Your task to perform on an android device: Add jbl charge 4 to the cart on costco, then select checkout. Image 0: 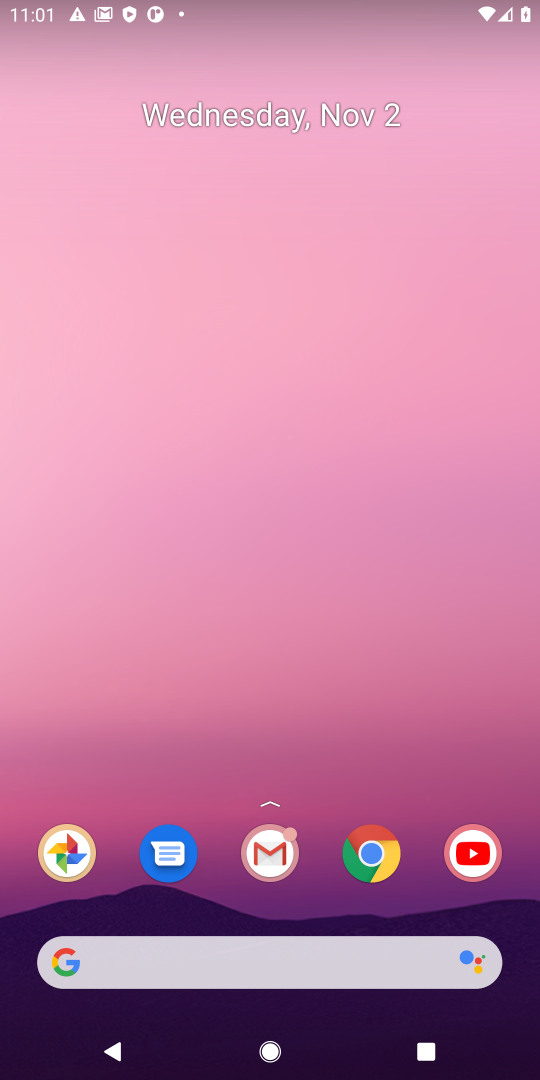
Step 0: click (372, 859)
Your task to perform on an android device: Add jbl charge 4 to the cart on costco, then select checkout. Image 1: 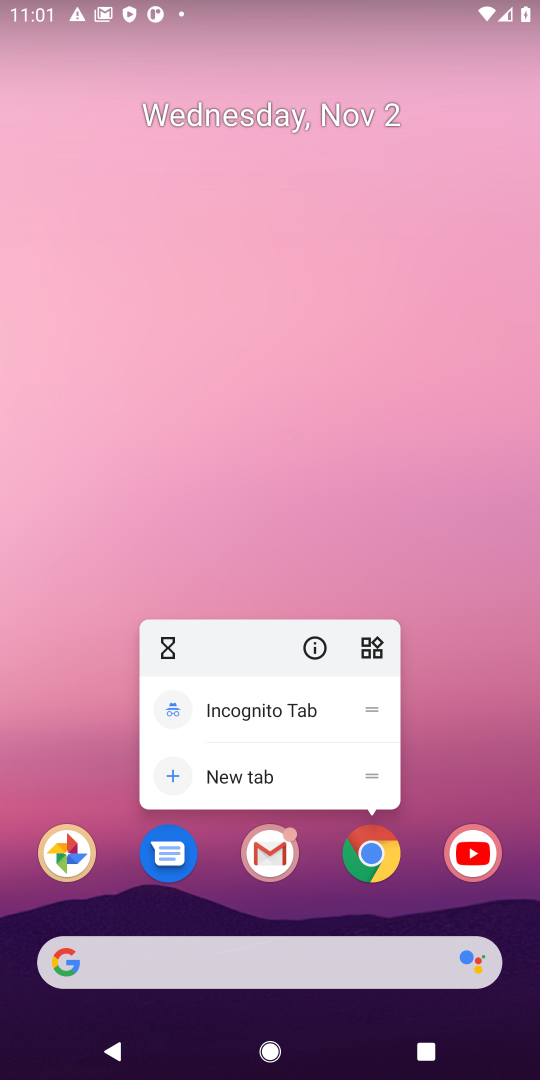
Step 1: click (372, 858)
Your task to perform on an android device: Add jbl charge 4 to the cart on costco, then select checkout. Image 2: 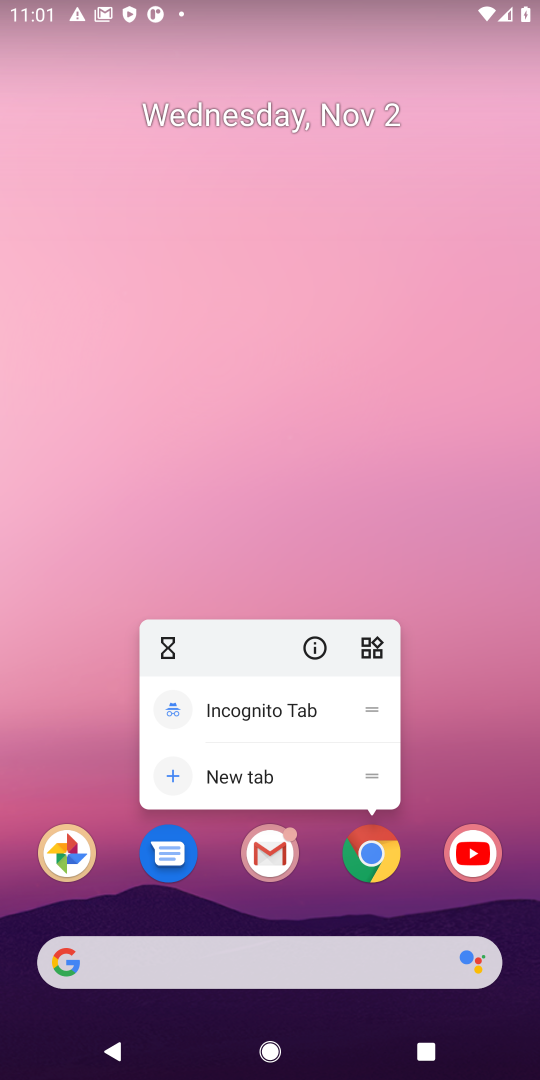
Step 2: click (372, 858)
Your task to perform on an android device: Add jbl charge 4 to the cart on costco, then select checkout. Image 3: 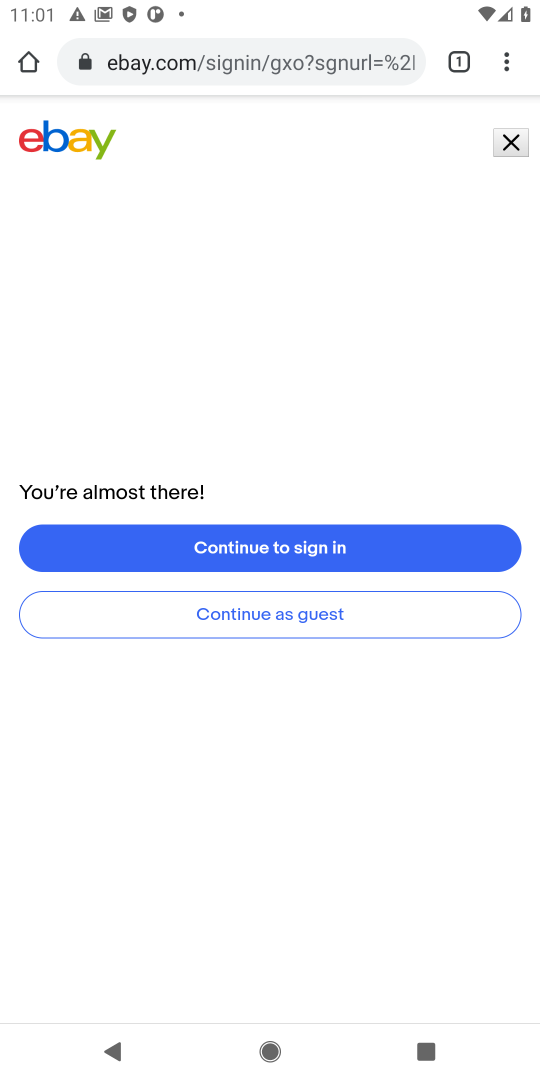
Step 3: click (259, 59)
Your task to perform on an android device: Add jbl charge 4 to the cart on costco, then select checkout. Image 4: 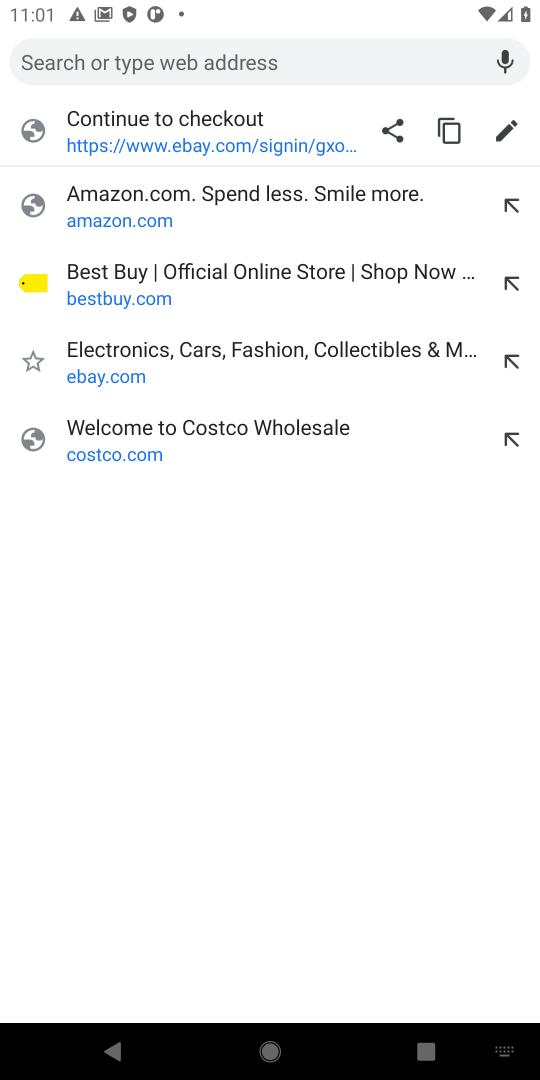
Step 4: type " costco"
Your task to perform on an android device: Add jbl charge 4 to the cart on costco, then select checkout. Image 5: 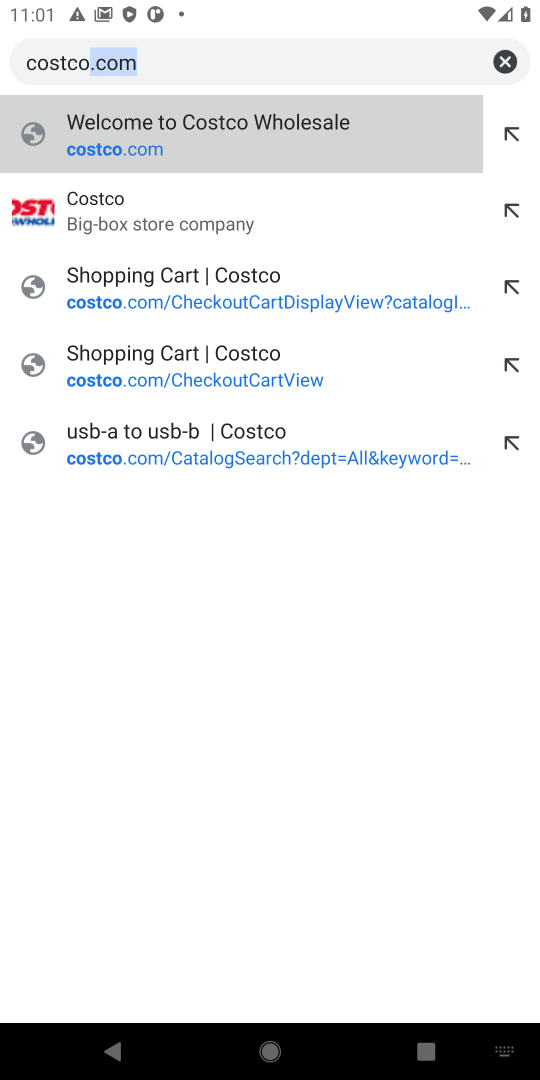
Step 5: press enter
Your task to perform on an android device: Add jbl charge 4 to the cart on costco, then select checkout. Image 6: 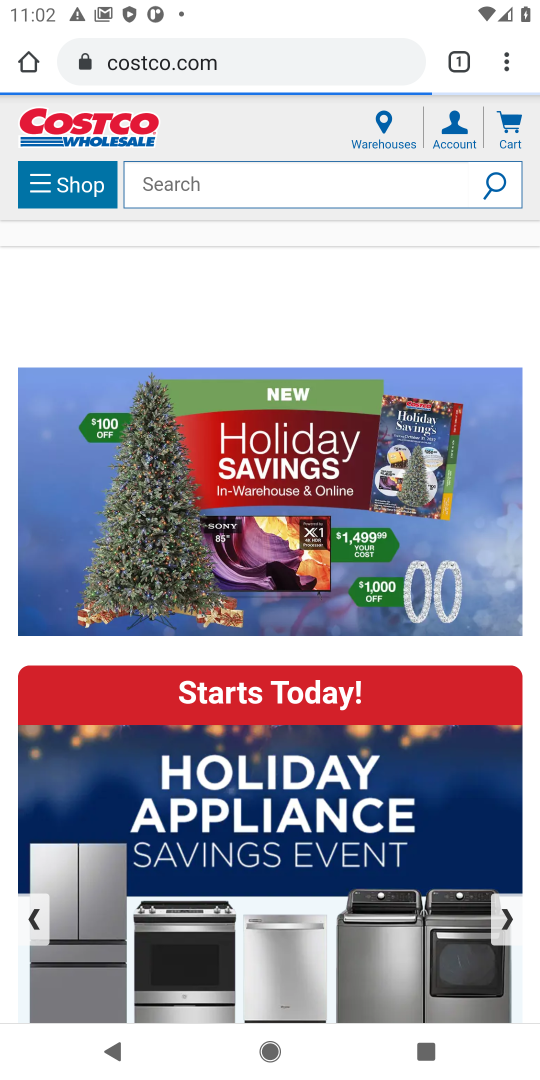
Step 6: click (267, 190)
Your task to perform on an android device: Add jbl charge 4 to the cart on costco, then select checkout. Image 7: 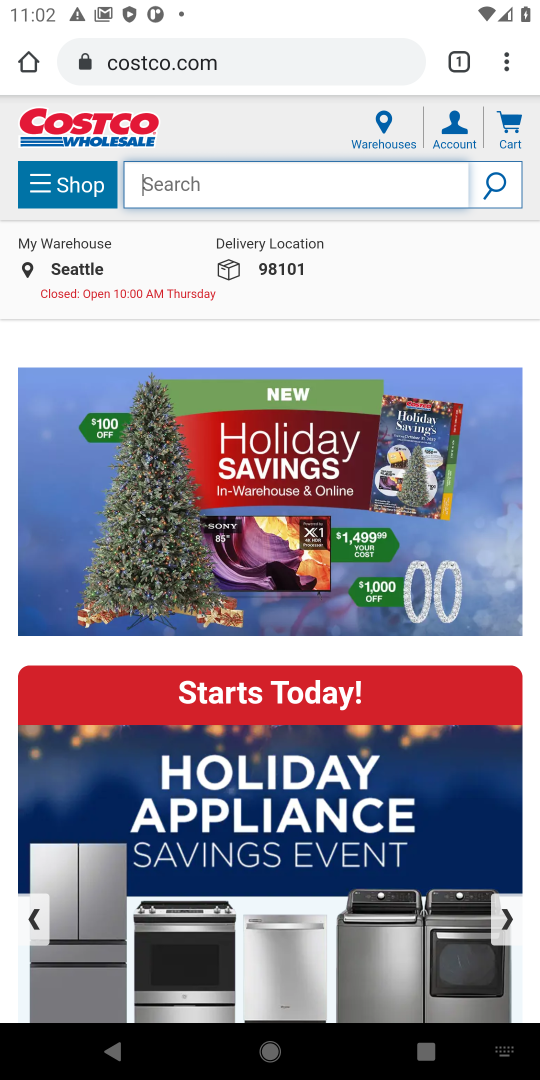
Step 7: type "jbl charge 4"
Your task to perform on an android device: Add jbl charge 4 to the cart on costco, then select checkout. Image 8: 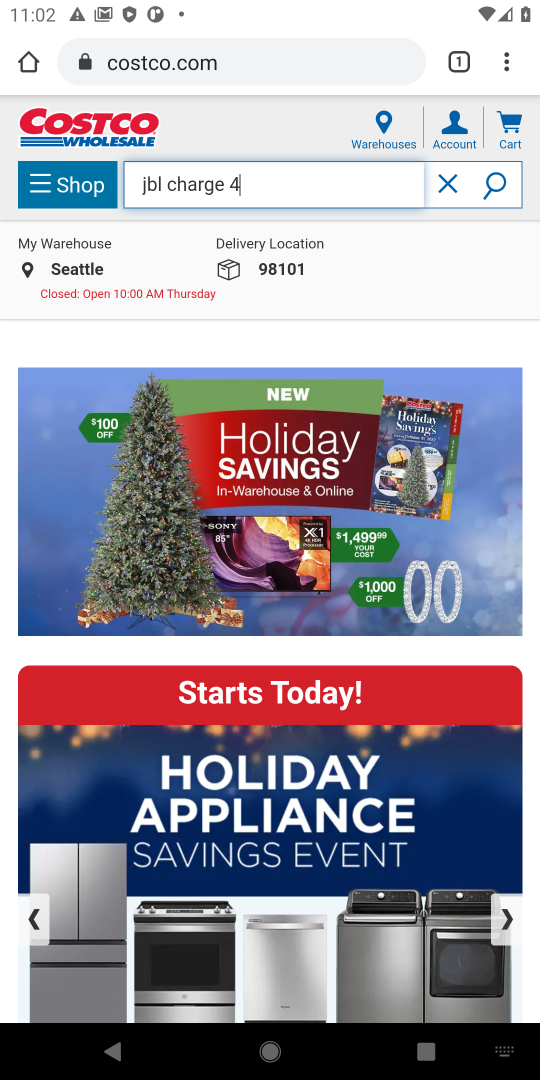
Step 8: press enter
Your task to perform on an android device: Add jbl charge 4 to the cart on costco, then select checkout. Image 9: 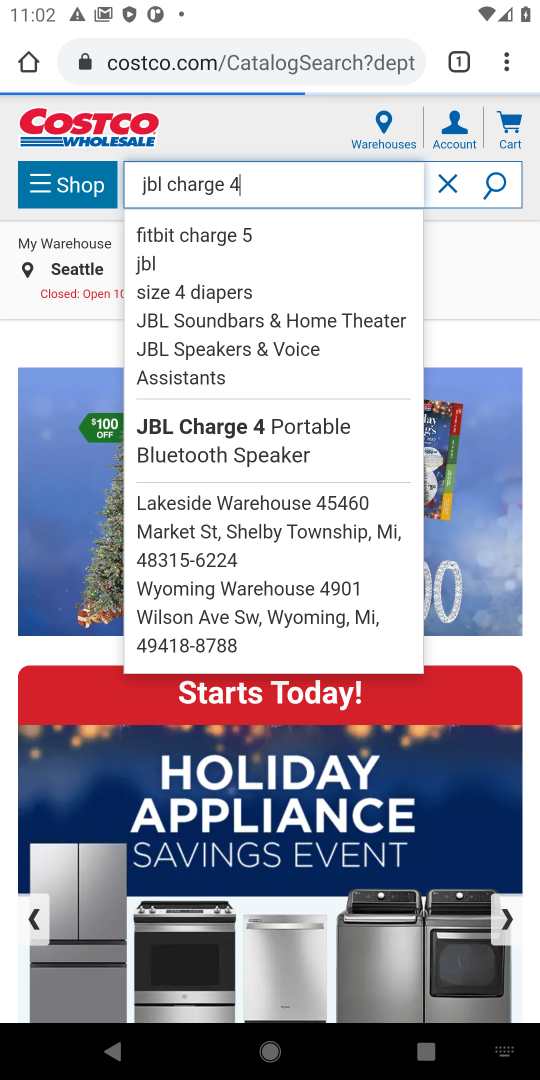
Step 9: press enter
Your task to perform on an android device: Add jbl charge 4 to the cart on costco, then select checkout. Image 10: 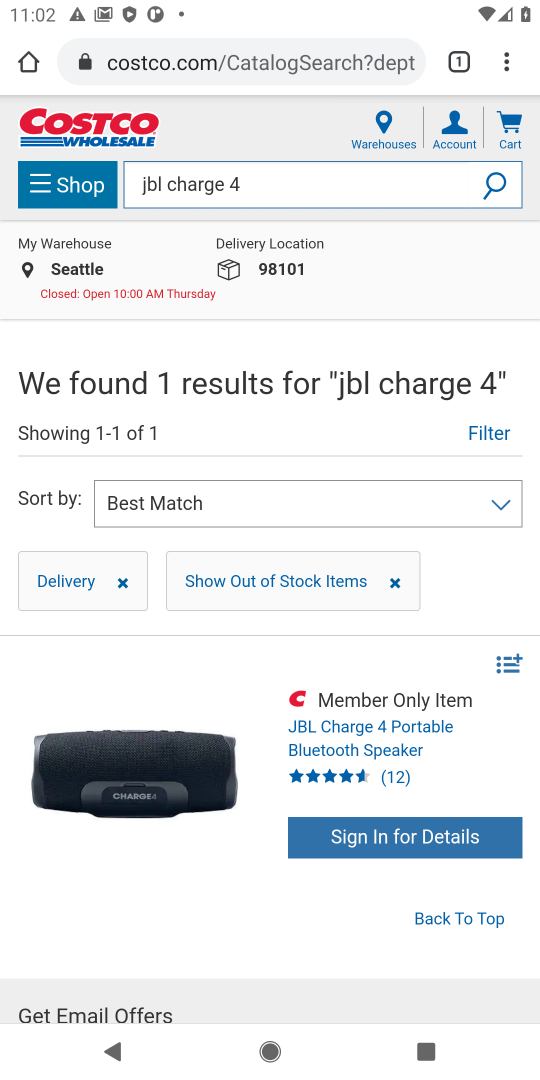
Step 10: drag from (322, 760) to (432, 555)
Your task to perform on an android device: Add jbl charge 4 to the cart on costco, then select checkout. Image 11: 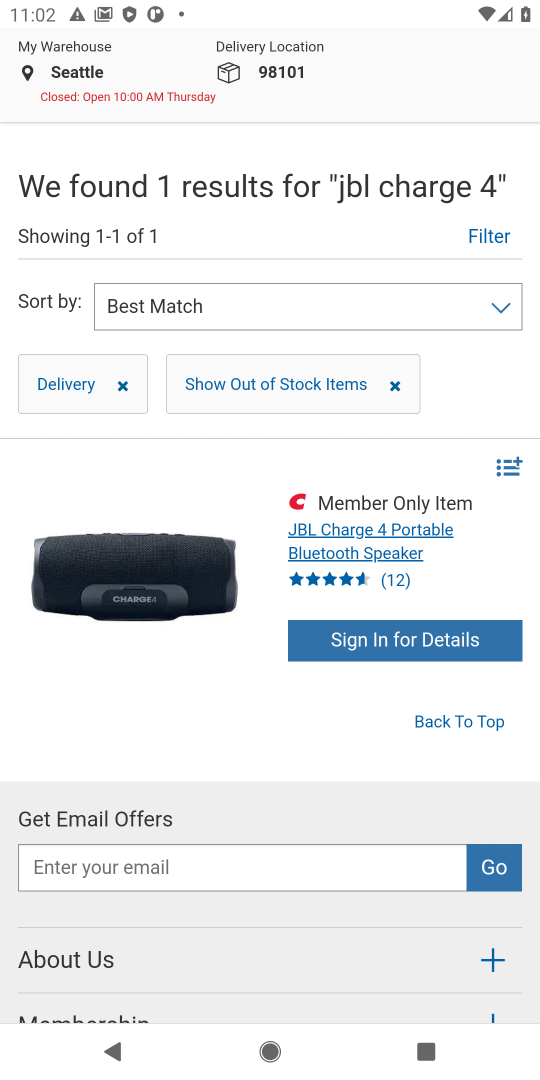
Step 11: click (307, 533)
Your task to perform on an android device: Add jbl charge 4 to the cart on costco, then select checkout. Image 12: 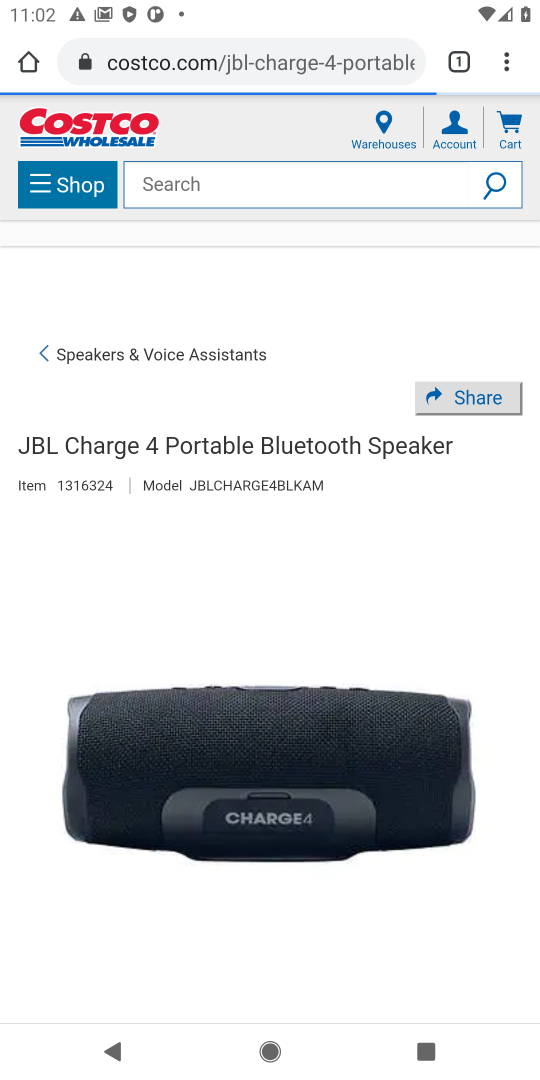
Step 12: task complete